Your task to perform on an android device: Open battery settings Image 0: 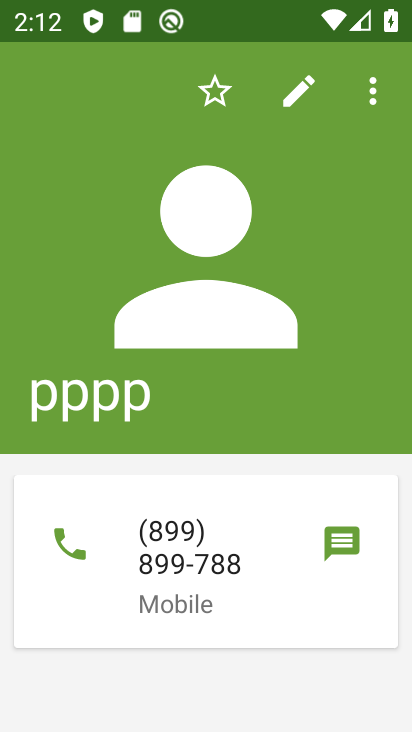
Step 0: press home button
Your task to perform on an android device: Open battery settings Image 1: 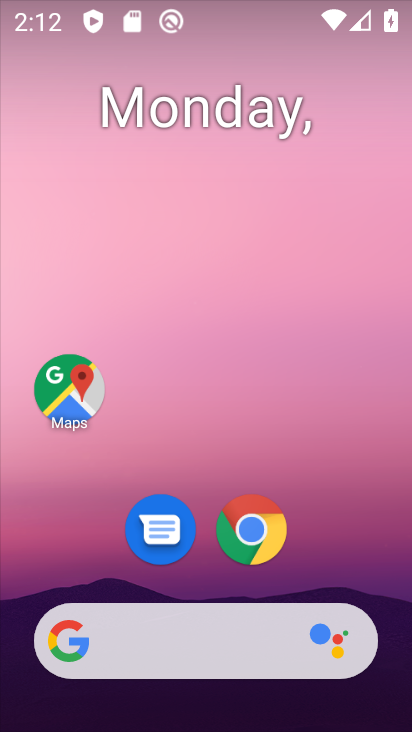
Step 1: drag from (68, 588) to (213, 51)
Your task to perform on an android device: Open battery settings Image 2: 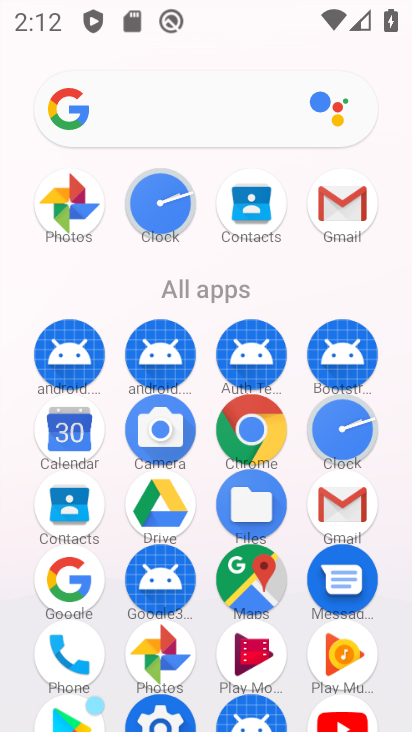
Step 2: drag from (201, 626) to (254, 370)
Your task to perform on an android device: Open battery settings Image 3: 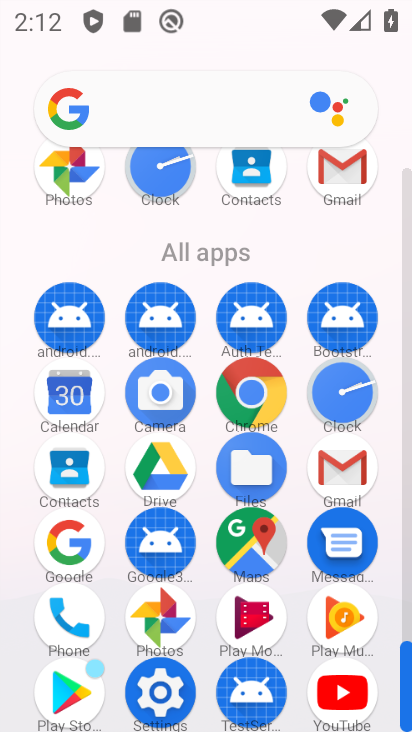
Step 3: click (176, 700)
Your task to perform on an android device: Open battery settings Image 4: 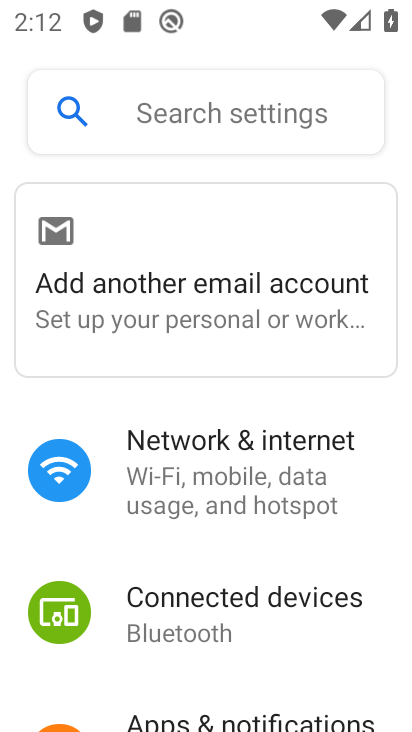
Step 4: drag from (189, 655) to (277, 303)
Your task to perform on an android device: Open battery settings Image 5: 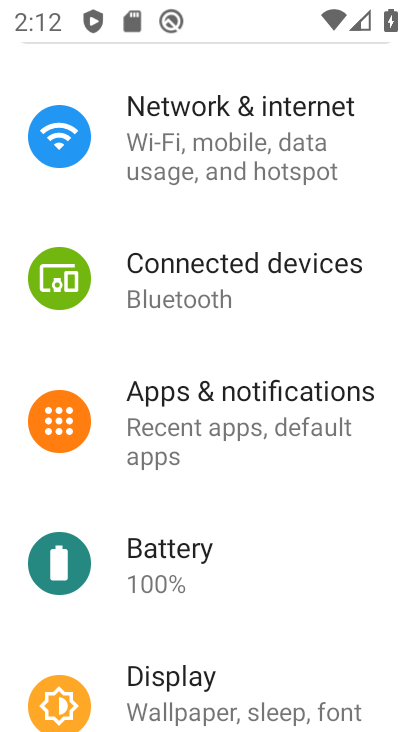
Step 5: click (212, 570)
Your task to perform on an android device: Open battery settings Image 6: 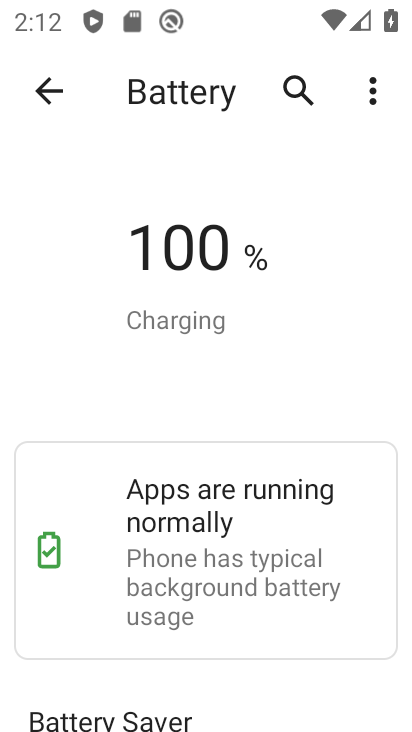
Step 6: task complete